Your task to perform on an android device: open app "Messenger Lite" (install if not already installed) and go to login screen Image 0: 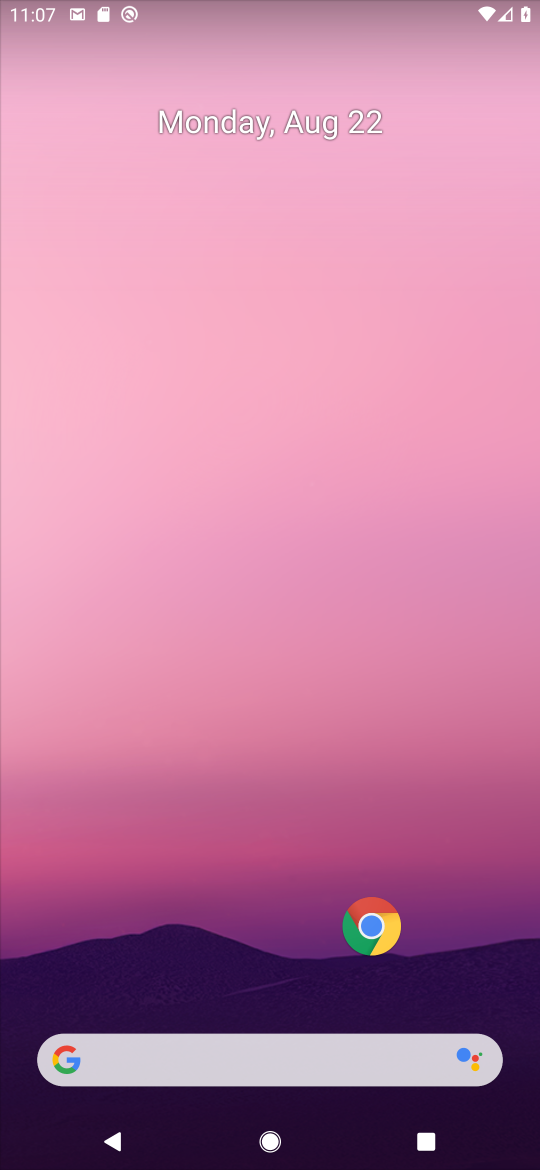
Step 0: drag from (87, 993) to (317, 14)
Your task to perform on an android device: open app "Messenger Lite" (install if not already installed) and go to login screen Image 1: 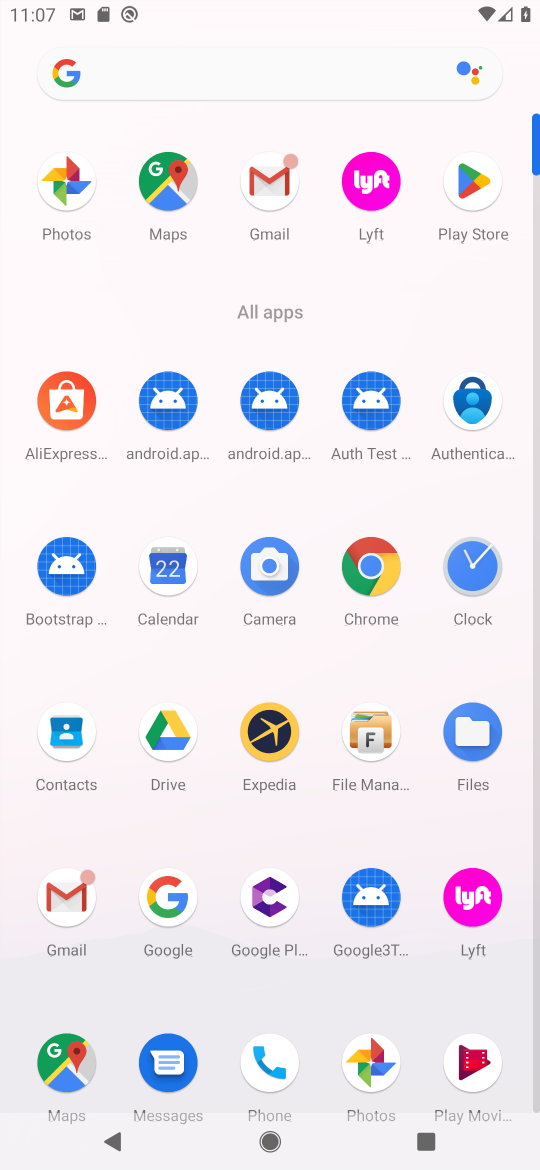
Step 1: click (497, 187)
Your task to perform on an android device: open app "Messenger Lite" (install if not already installed) and go to login screen Image 2: 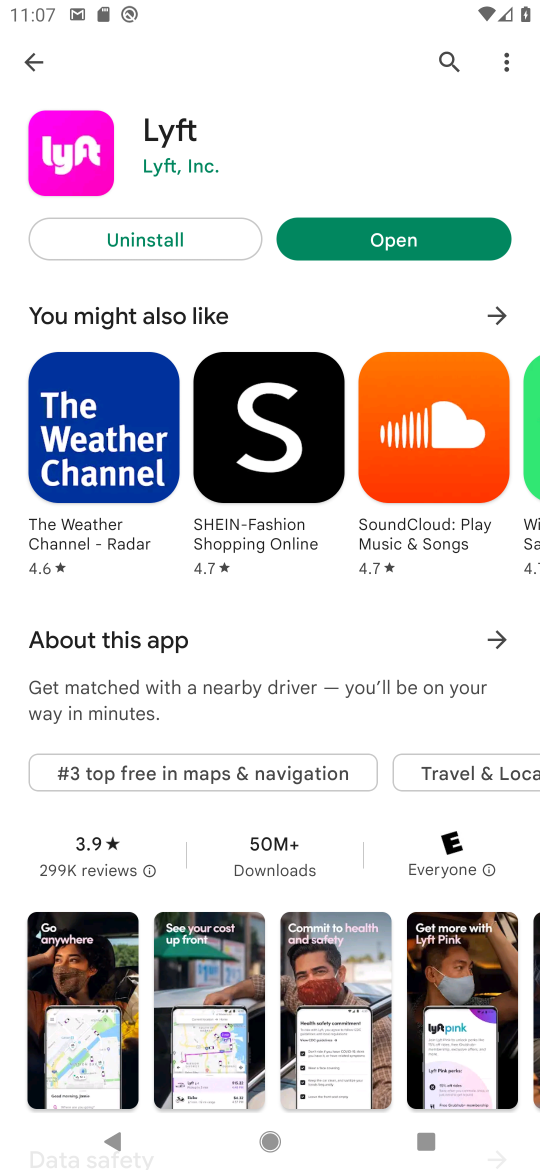
Step 2: press back button
Your task to perform on an android device: open app "Messenger Lite" (install if not already installed) and go to login screen Image 3: 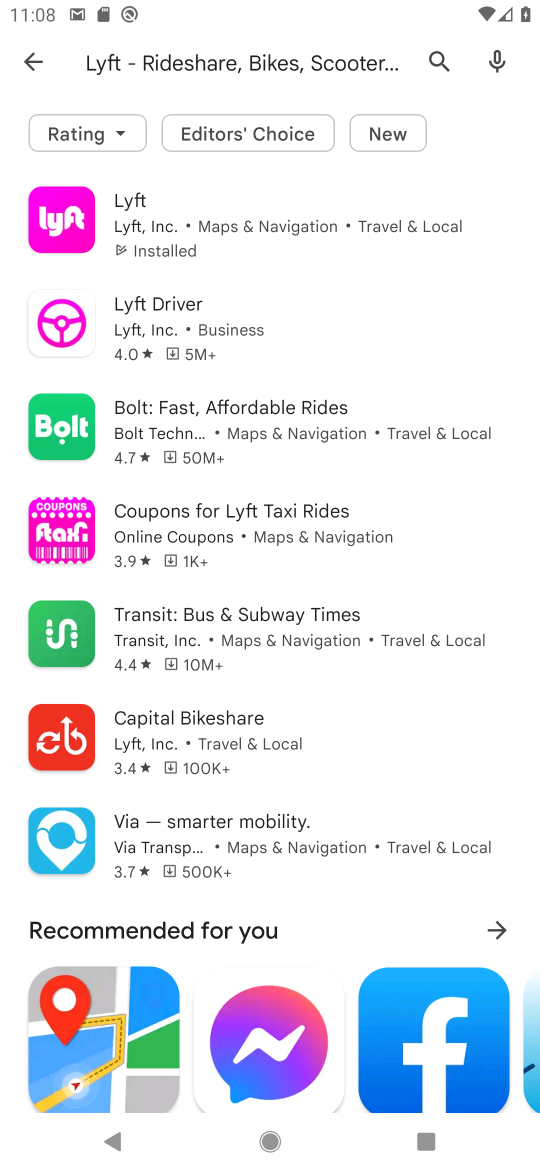
Step 3: press back button
Your task to perform on an android device: open app "Messenger Lite" (install if not already installed) and go to login screen Image 4: 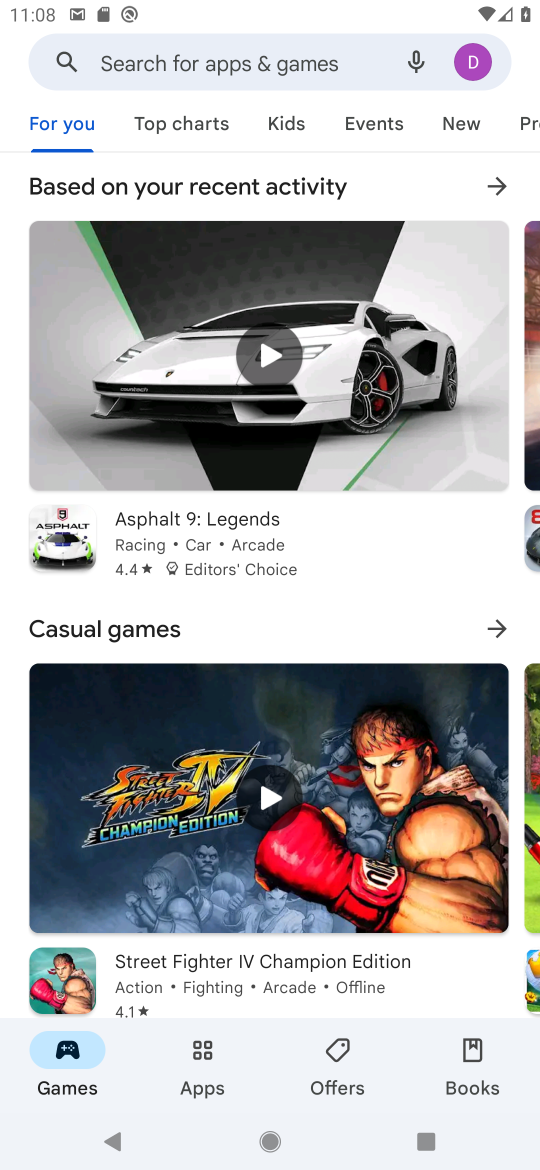
Step 4: click (226, 74)
Your task to perform on an android device: open app "Messenger Lite" (install if not already installed) and go to login screen Image 5: 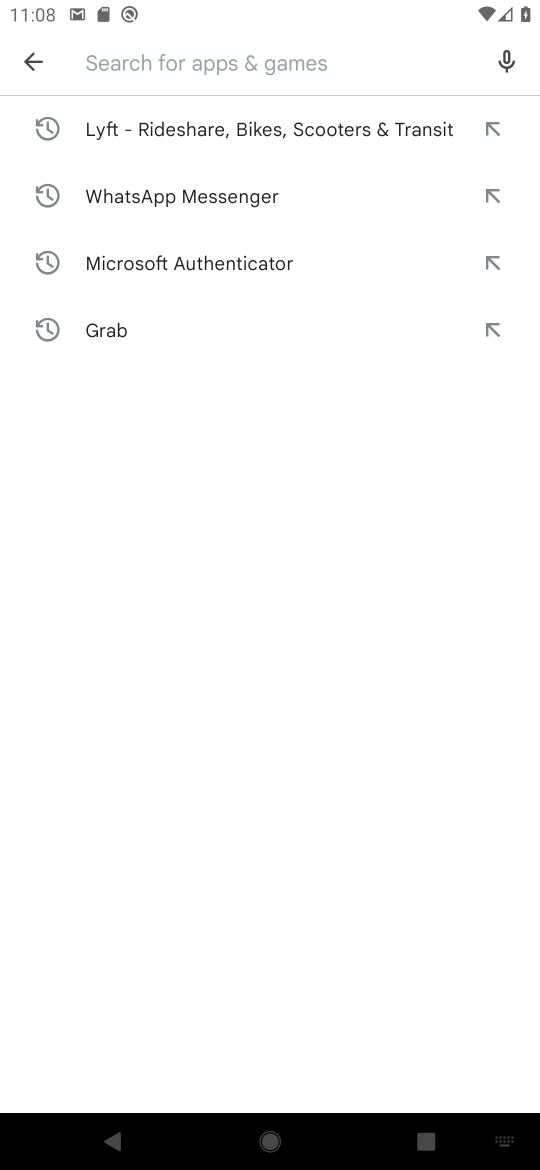
Step 5: type "Messenger Lite"
Your task to perform on an android device: open app "Messenger Lite" (install if not already installed) and go to login screen Image 6: 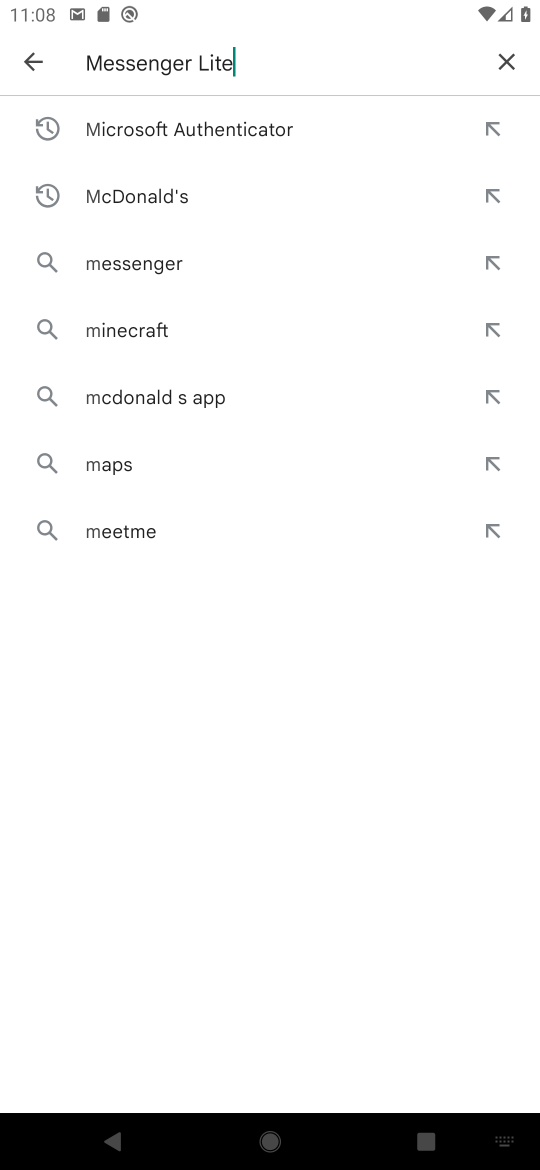
Step 6: press enter
Your task to perform on an android device: open app "Messenger Lite" (install if not already installed) and go to login screen Image 7: 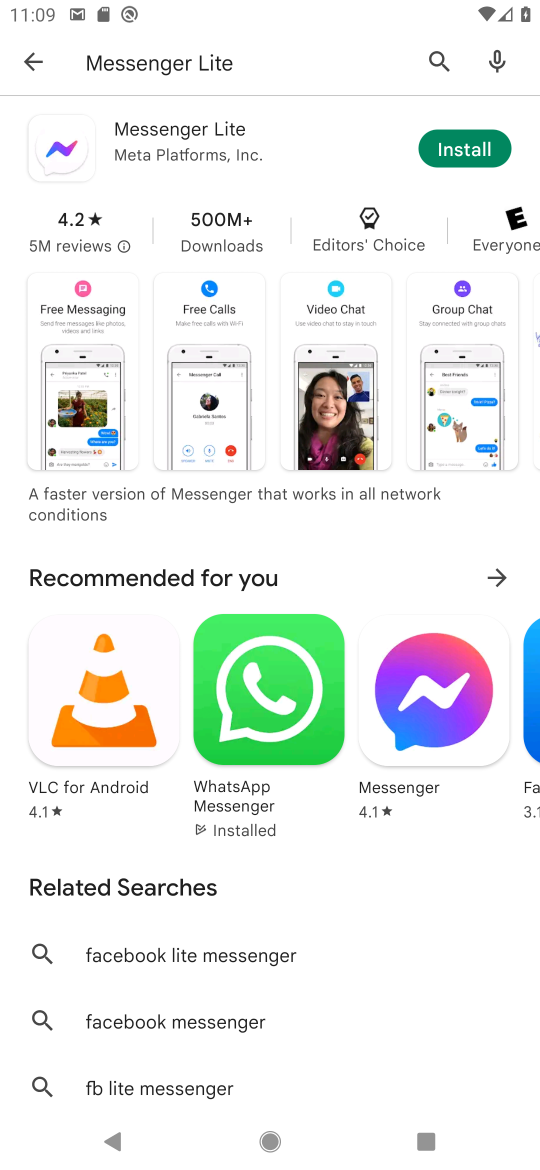
Step 7: click (440, 157)
Your task to perform on an android device: open app "Messenger Lite" (install if not already installed) and go to login screen Image 8: 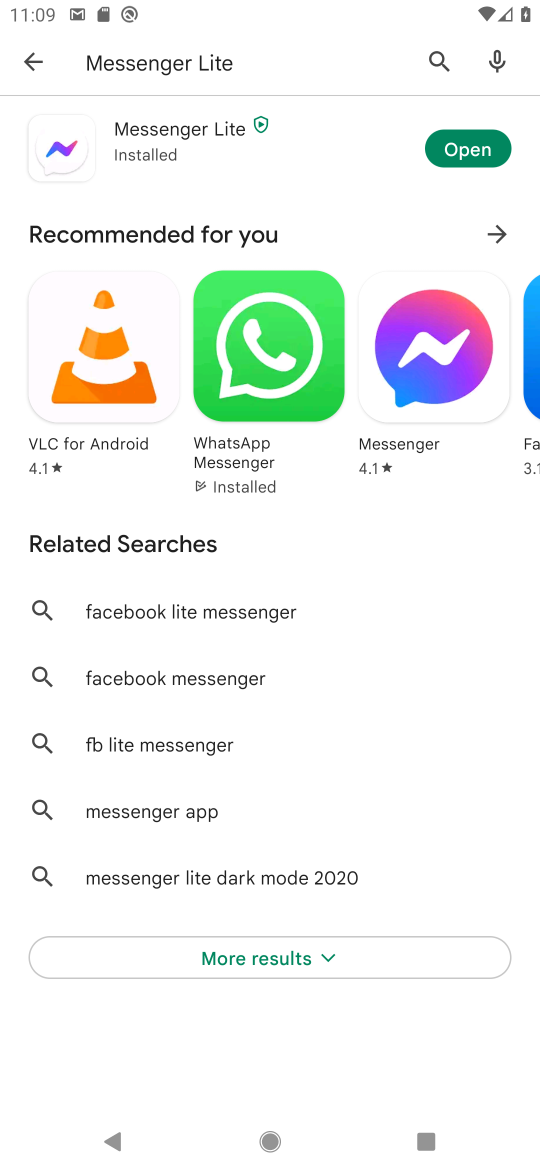
Step 8: click (466, 142)
Your task to perform on an android device: open app "Messenger Lite" (install if not already installed) and go to login screen Image 9: 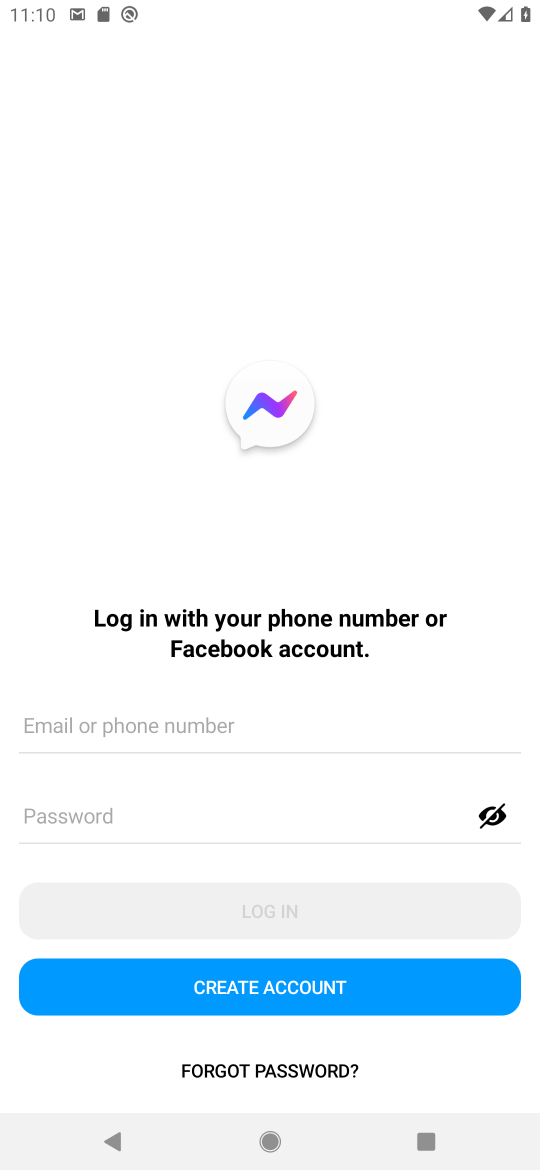
Step 9: task complete